Your task to perform on an android device: open app "Adobe Acrobat Reader" Image 0: 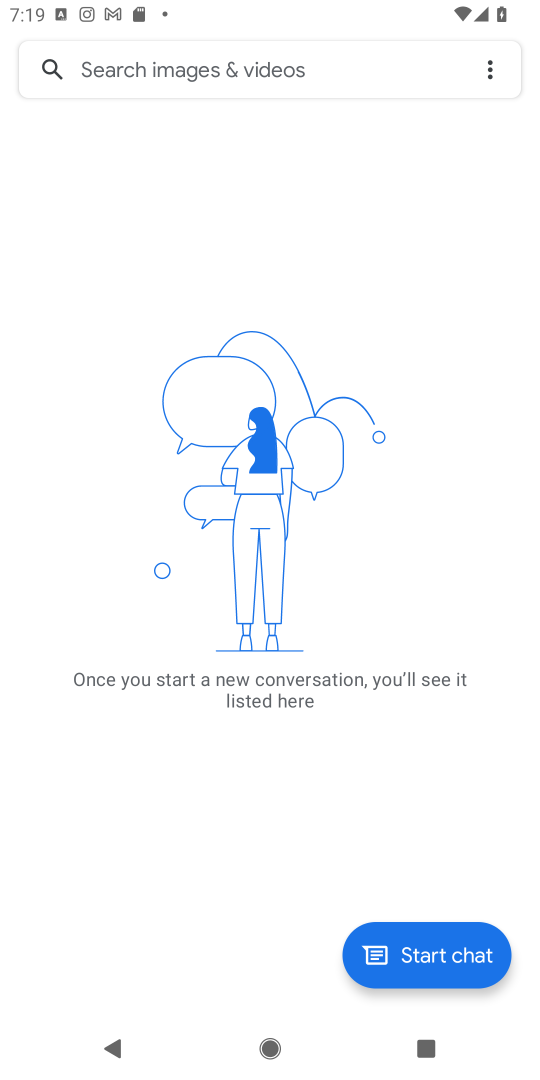
Step 0: press home button
Your task to perform on an android device: open app "Adobe Acrobat Reader" Image 1: 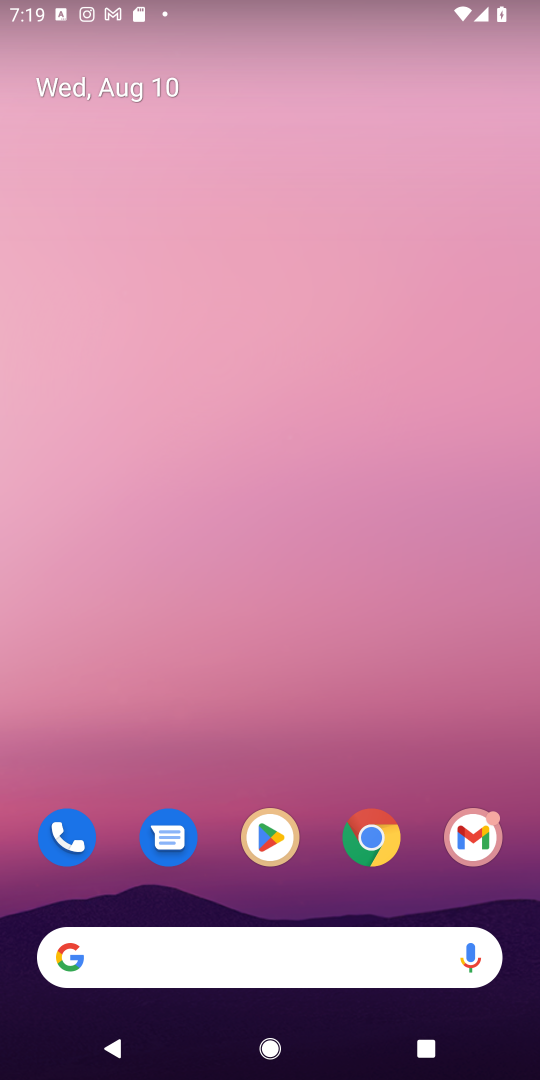
Step 1: click (276, 828)
Your task to perform on an android device: open app "Adobe Acrobat Reader" Image 2: 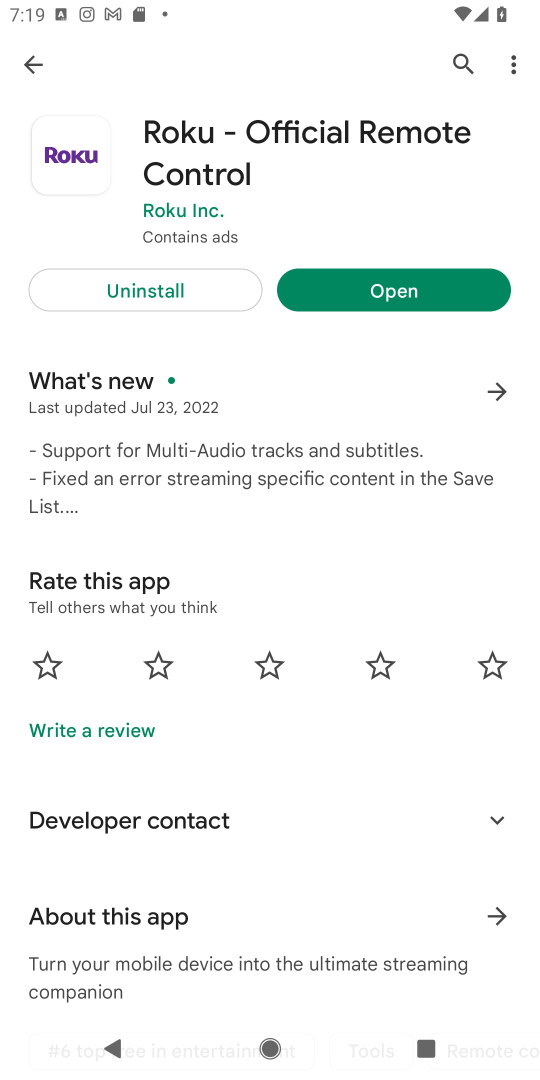
Step 2: click (453, 58)
Your task to perform on an android device: open app "Adobe Acrobat Reader" Image 3: 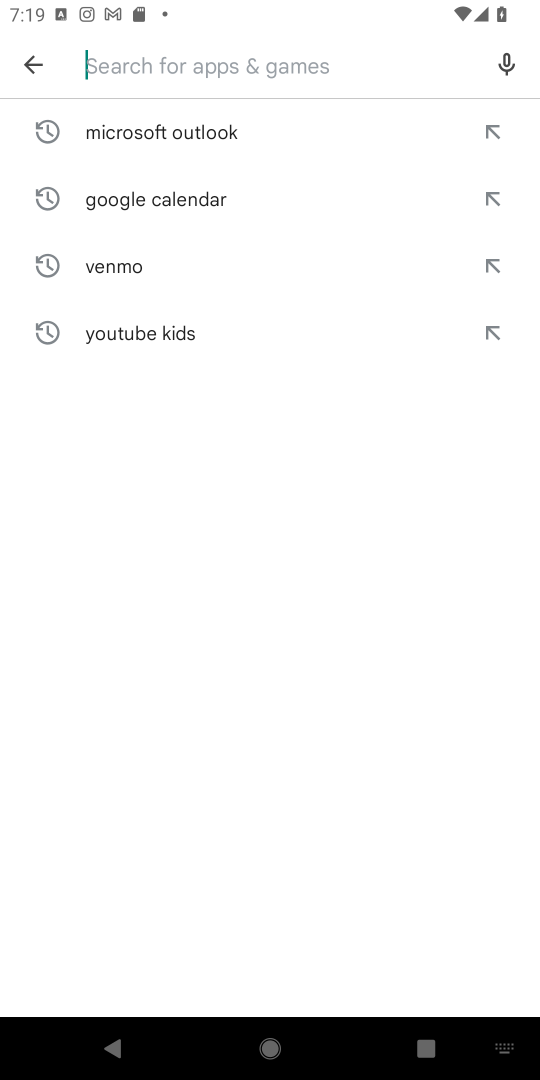
Step 3: type "Adobe Acrobat Reader"
Your task to perform on an android device: open app "Adobe Acrobat Reader" Image 4: 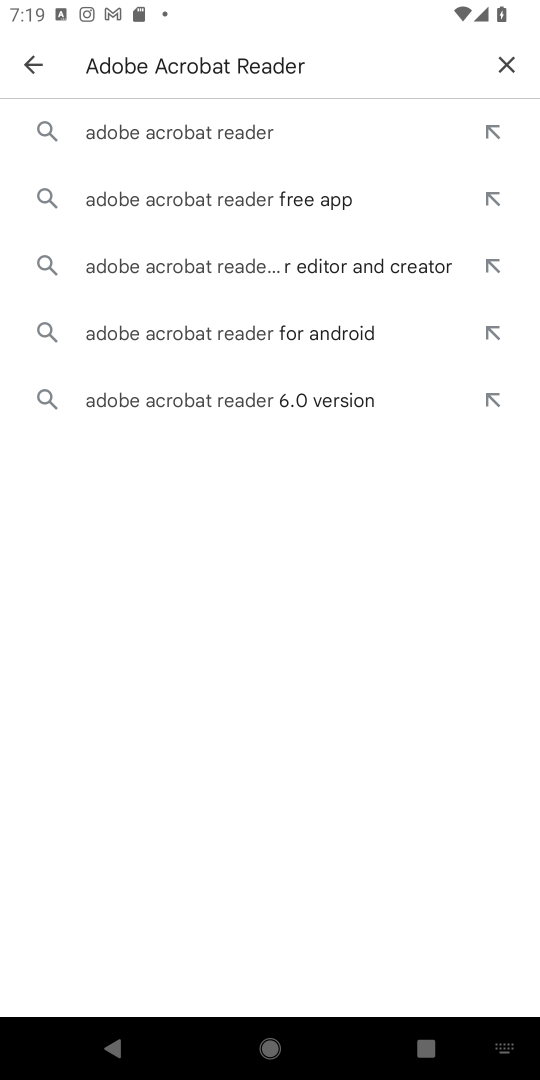
Step 4: click (178, 135)
Your task to perform on an android device: open app "Adobe Acrobat Reader" Image 5: 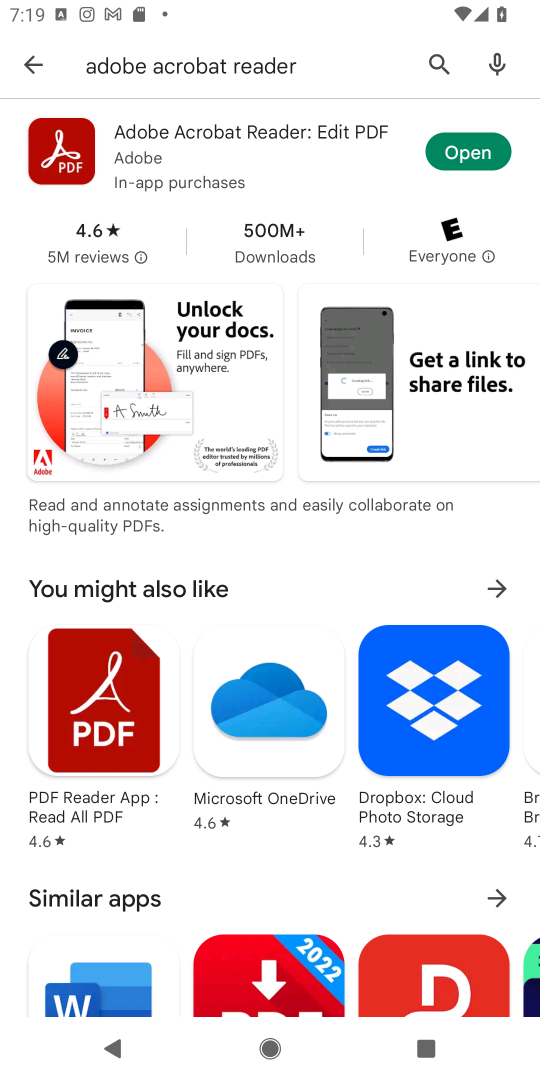
Step 5: task complete